Your task to perform on an android device: check data usage Image 0: 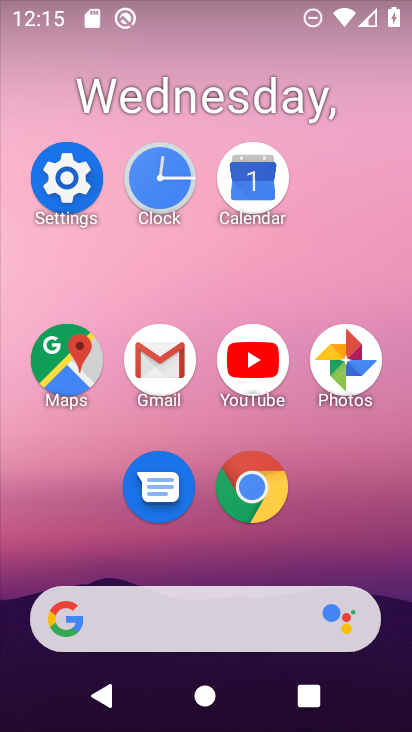
Step 0: click (54, 180)
Your task to perform on an android device: check data usage Image 1: 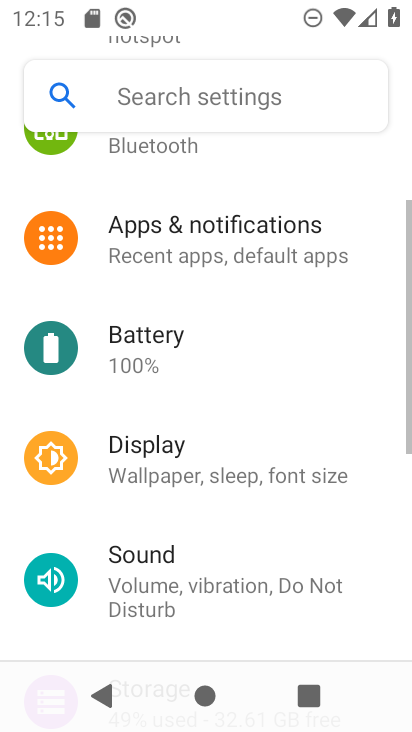
Step 1: drag from (280, 223) to (321, 600)
Your task to perform on an android device: check data usage Image 2: 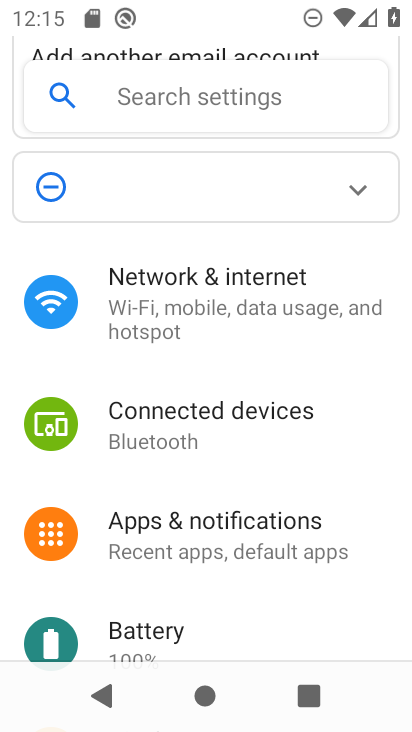
Step 2: click (295, 270)
Your task to perform on an android device: check data usage Image 3: 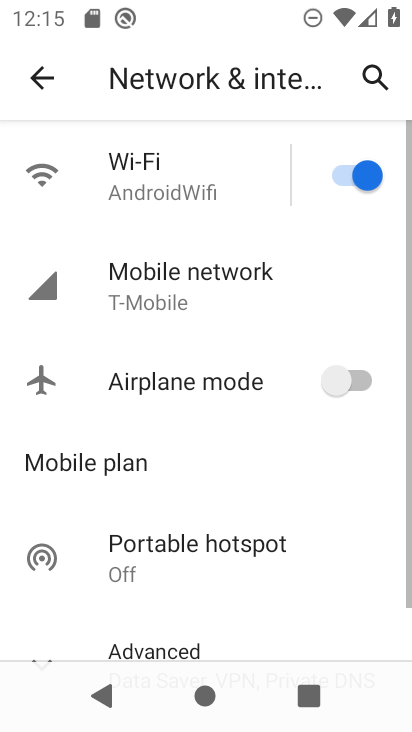
Step 3: click (216, 299)
Your task to perform on an android device: check data usage Image 4: 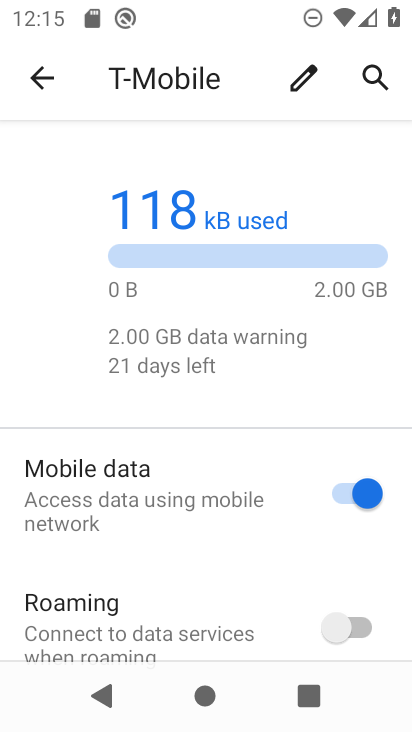
Step 4: task complete